Your task to perform on an android device: Open sound settings Image 0: 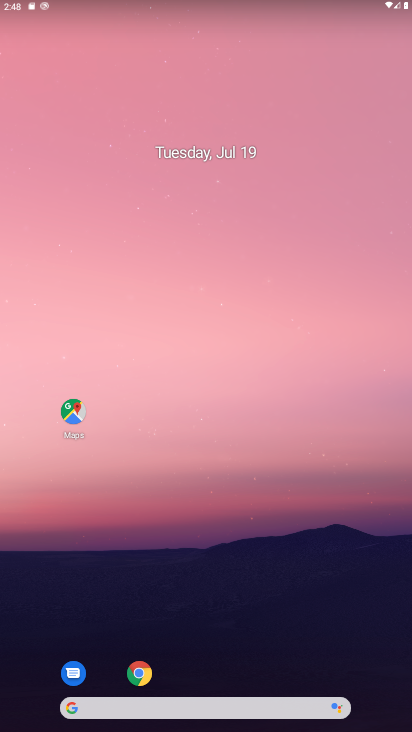
Step 0: drag from (235, 628) to (172, 0)
Your task to perform on an android device: Open sound settings Image 1: 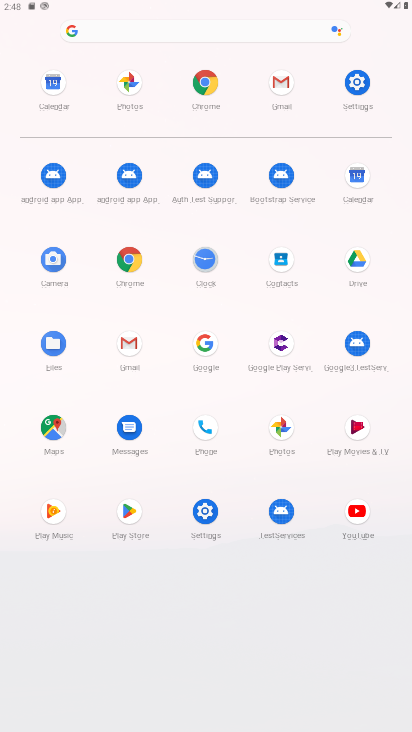
Step 1: click (205, 522)
Your task to perform on an android device: Open sound settings Image 2: 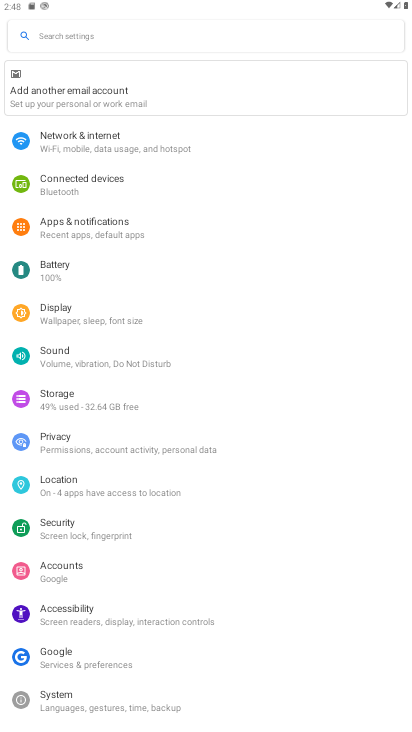
Step 2: click (62, 364)
Your task to perform on an android device: Open sound settings Image 3: 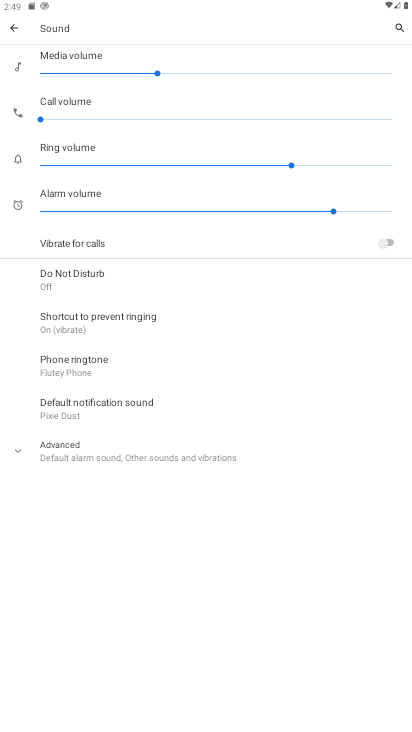
Step 3: task complete